Your task to perform on an android device: choose inbox layout in the gmail app Image 0: 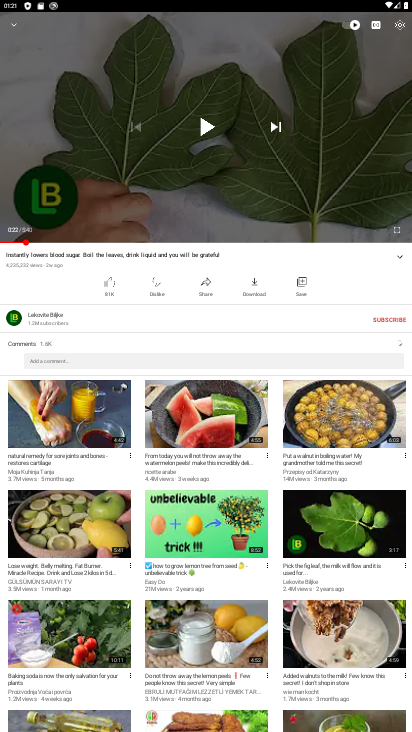
Step 0: press back button
Your task to perform on an android device: choose inbox layout in the gmail app Image 1: 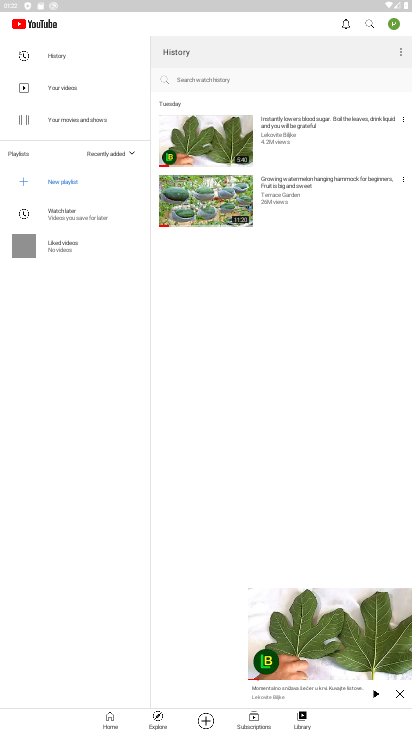
Step 1: press back button
Your task to perform on an android device: choose inbox layout in the gmail app Image 2: 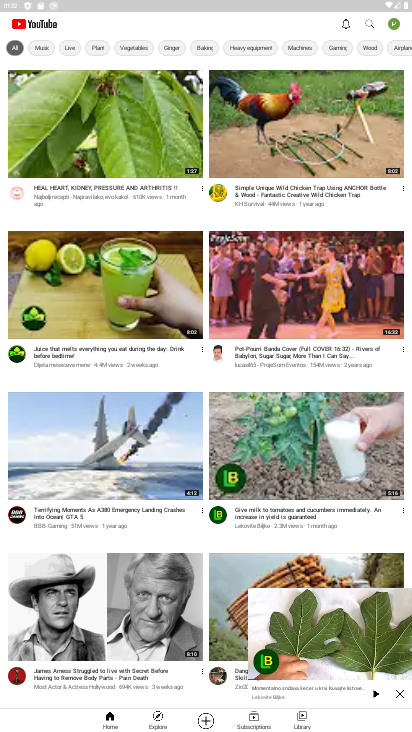
Step 2: press back button
Your task to perform on an android device: choose inbox layout in the gmail app Image 3: 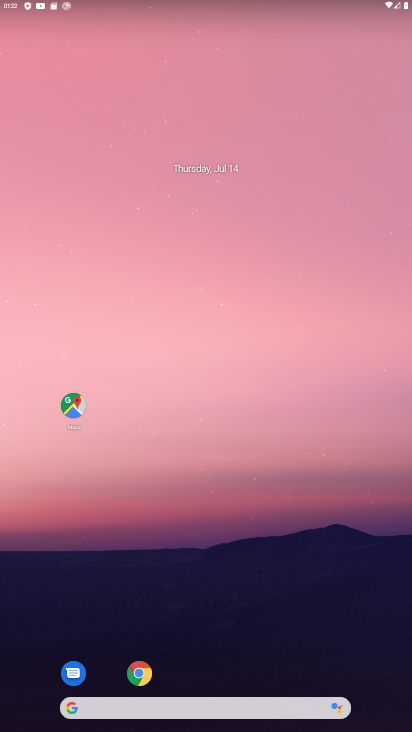
Step 3: drag from (234, 636) to (117, 115)
Your task to perform on an android device: choose inbox layout in the gmail app Image 4: 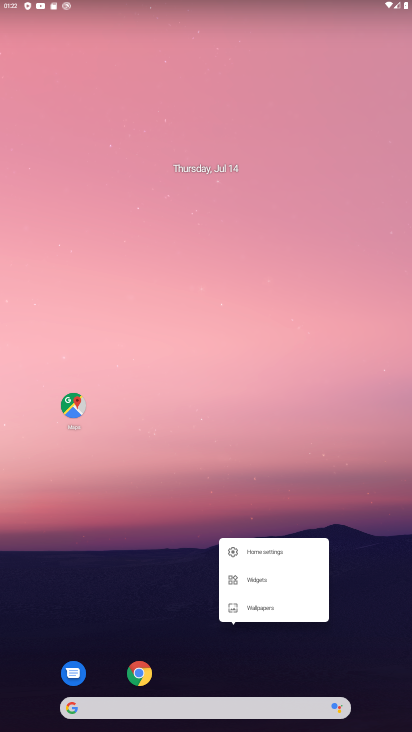
Step 4: click (191, 659)
Your task to perform on an android device: choose inbox layout in the gmail app Image 5: 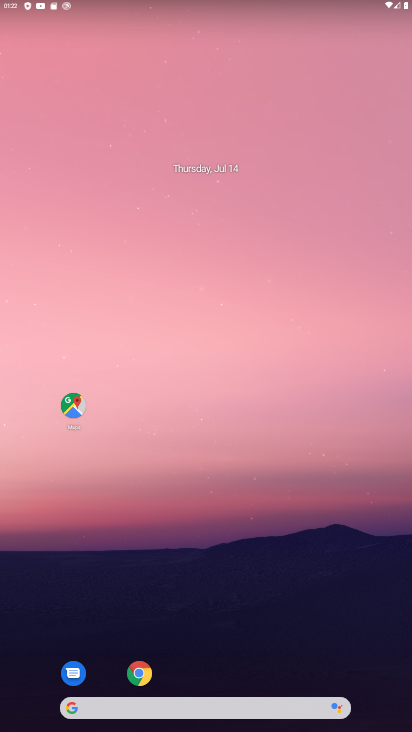
Step 5: drag from (191, 659) to (170, 57)
Your task to perform on an android device: choose inbox layout in the gmail app Image 6: 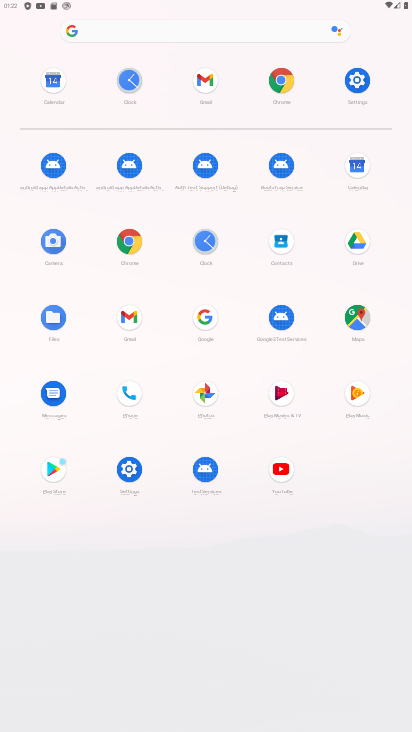
Step 6: click (200, 83)
Your task to perform on an android device: choose inbox layout in the gmail app Image 7: 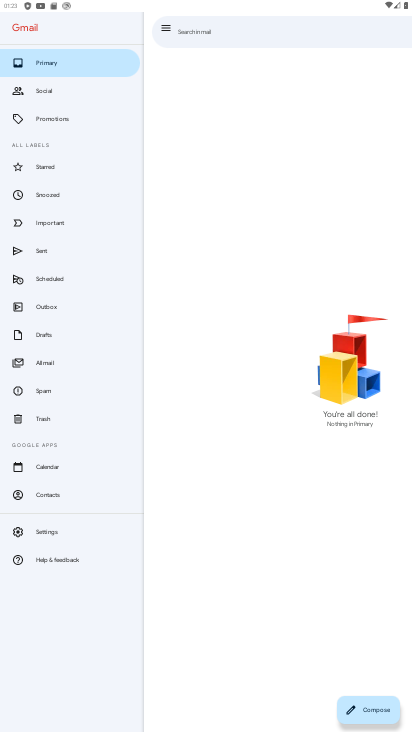
Step 7: task complete